Your task to perform on an android device: toggle pop-ups in chrome Image 0: 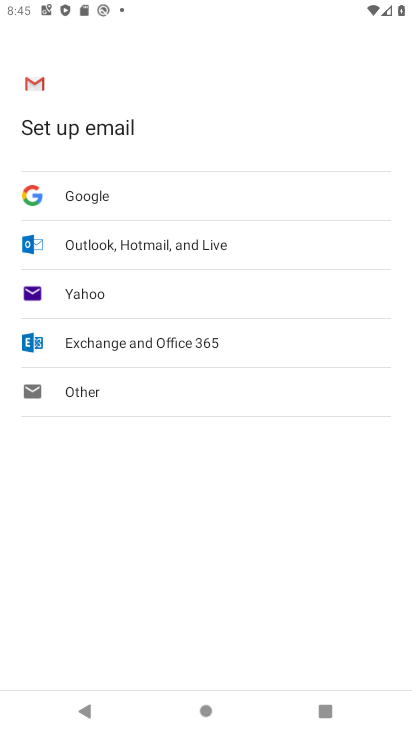
Step 0: press home button
Your task to perform on an android device: toggle pop-ups in chrome Image 1: 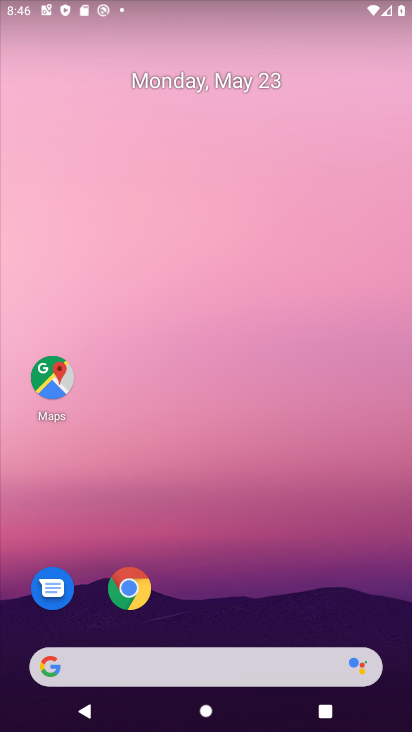
Step 1: drag from (396, 696) to (349, 208)
Your task to perform on an android device: toggle pop-ups in chrome Image 2: 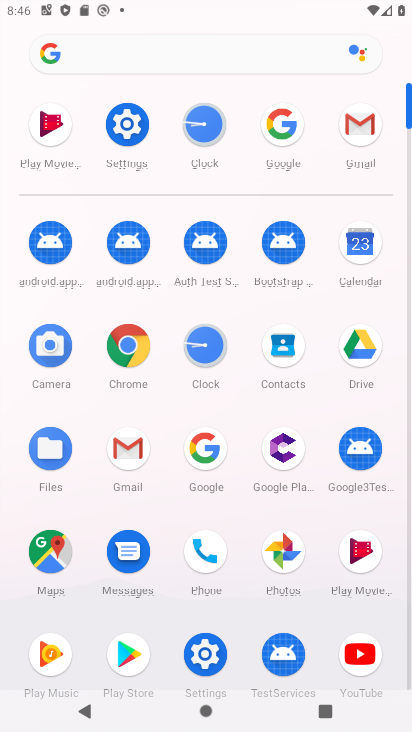
Step 2: click (124, 348)
Your task to perform on an android device: toggle pop-ups in chrome Image 3: 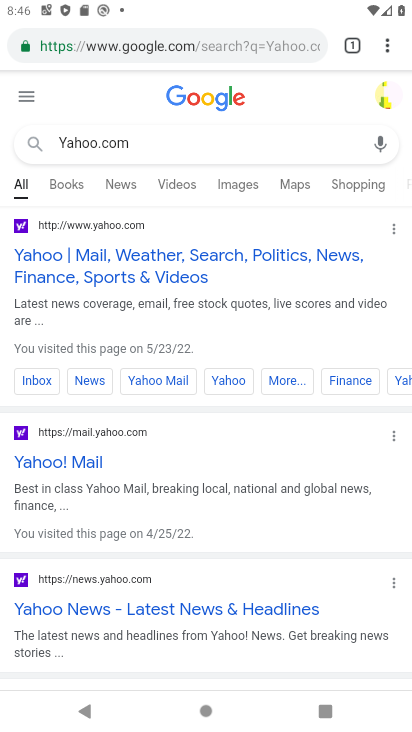
Step 3: click (385, 43)
Your task to perform on an android device: toggle pop-ups in chrome Image 4: 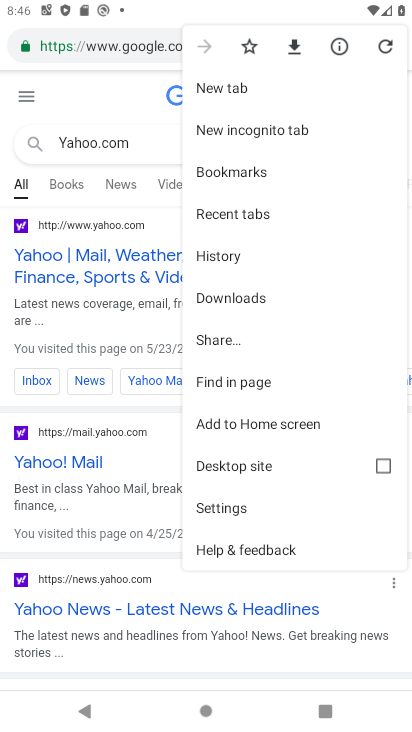
Step 4: click (242, 505)
Your task to perform on an android device: toggle pop-ups in chrome Image 5: 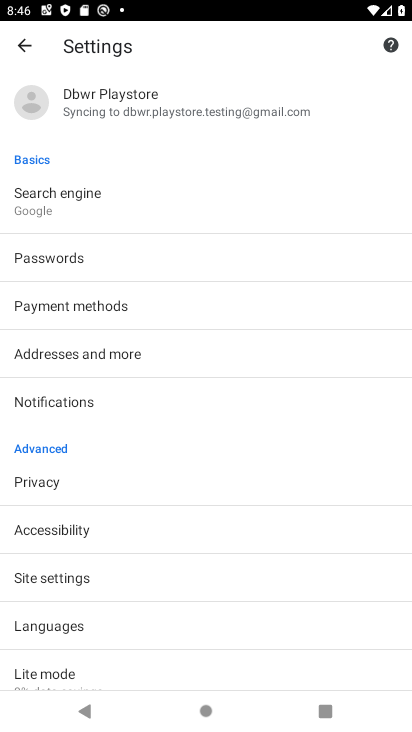
Step 5: click (56, 575)
Your task to perform on an android device: toggle pop-ups in chrome Image 6: 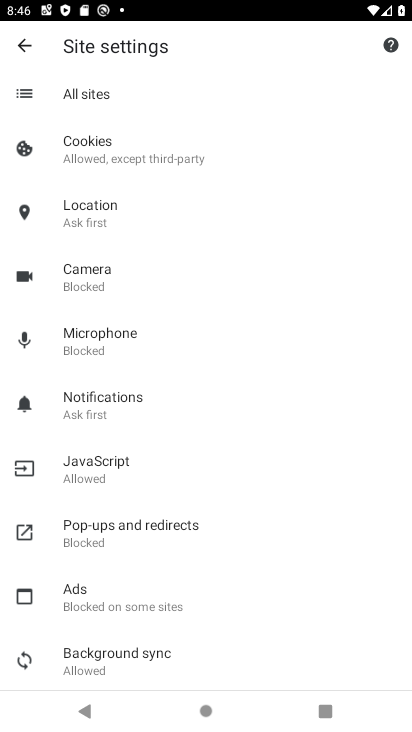
Step 6: click (113, 535)
Your task to perform on an android device: toggle pop-ups in chrome Image 7: 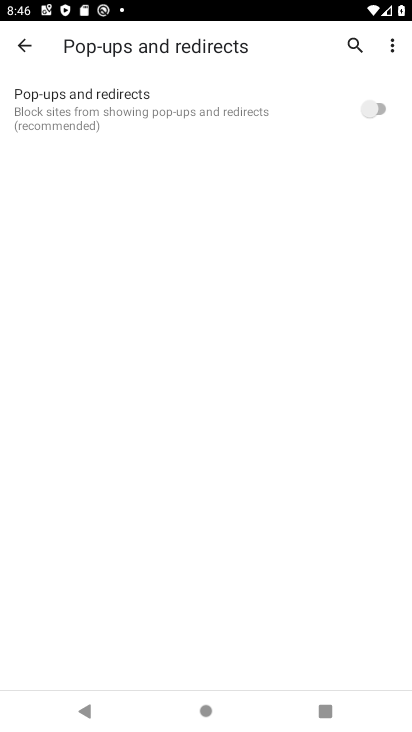
Step 7: click (376, 107)
Your task to perform on an android device: toggle pop-ups in chrome Image 8: 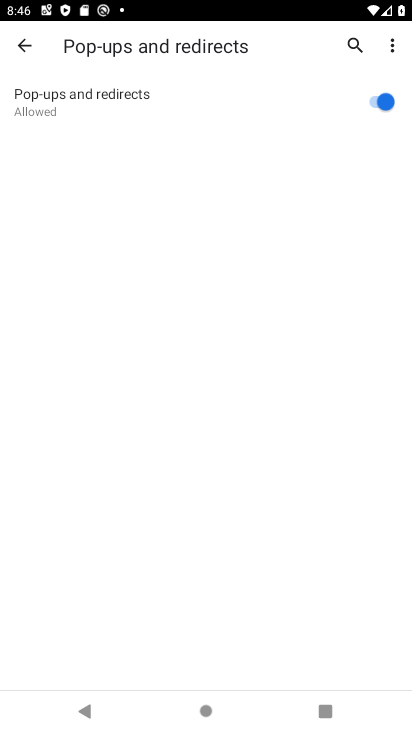
Step 8: task complete